Your task to perform on an android device: open app "Contacts" Image 0: 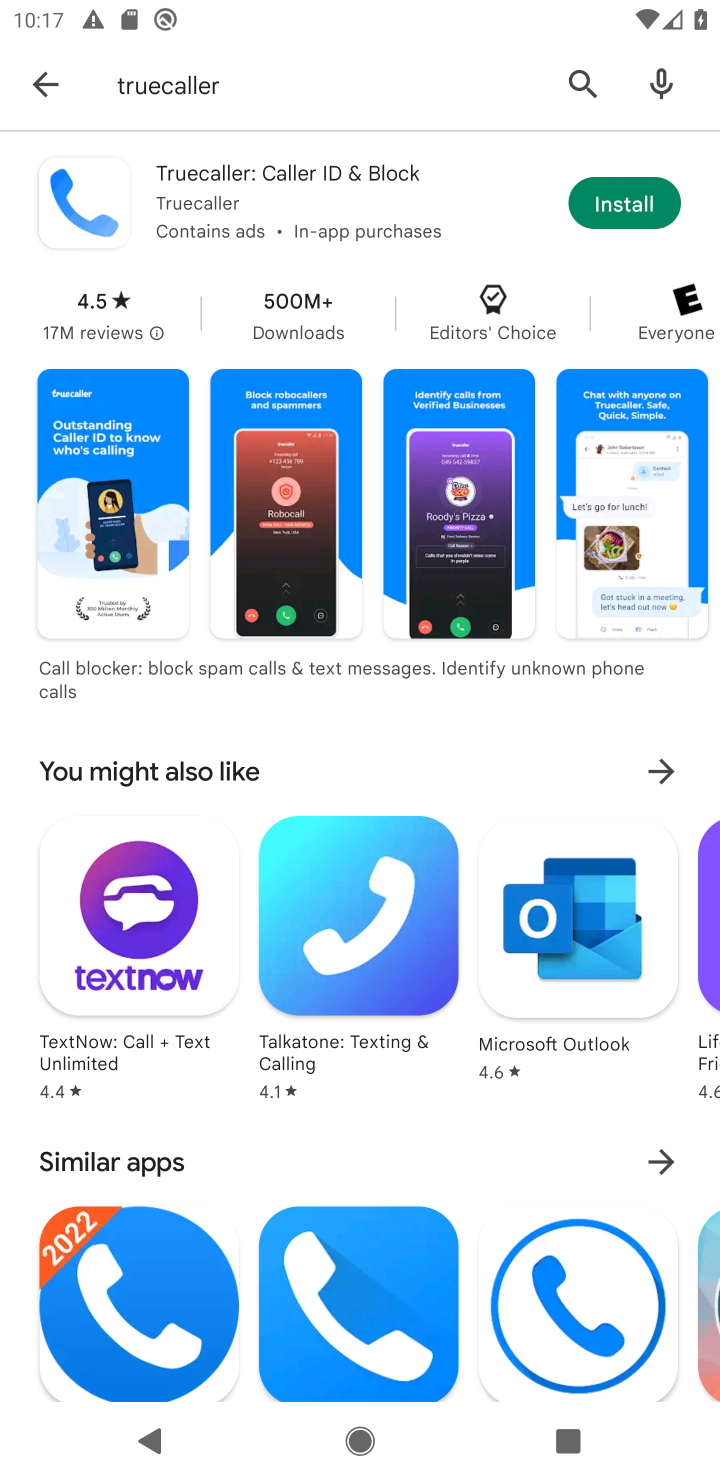
Step 0: click (277, 106)
Your task to perform on an android device: open app "Contacts" Image 1: 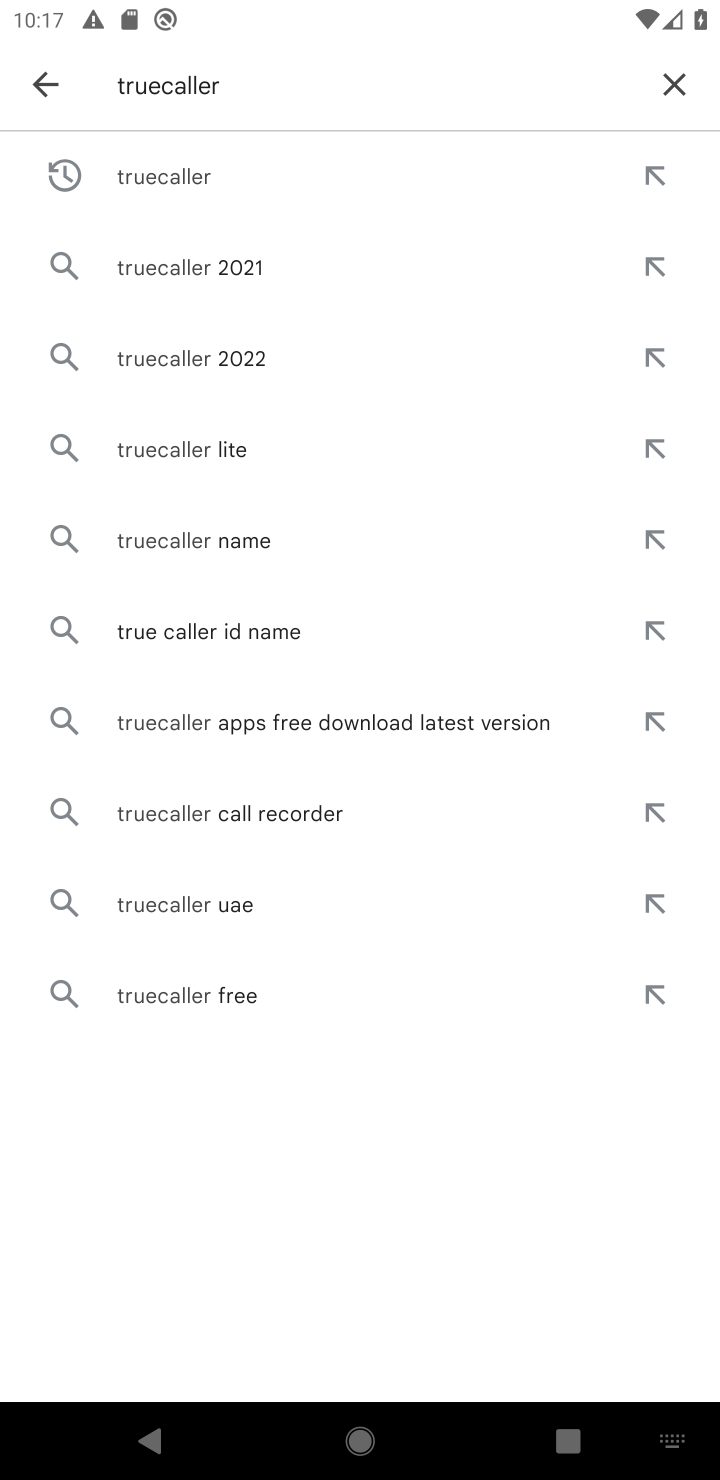
Step 1: click (674, 81)
Your task to perform on an android device: open app "Contacts" Image 2: 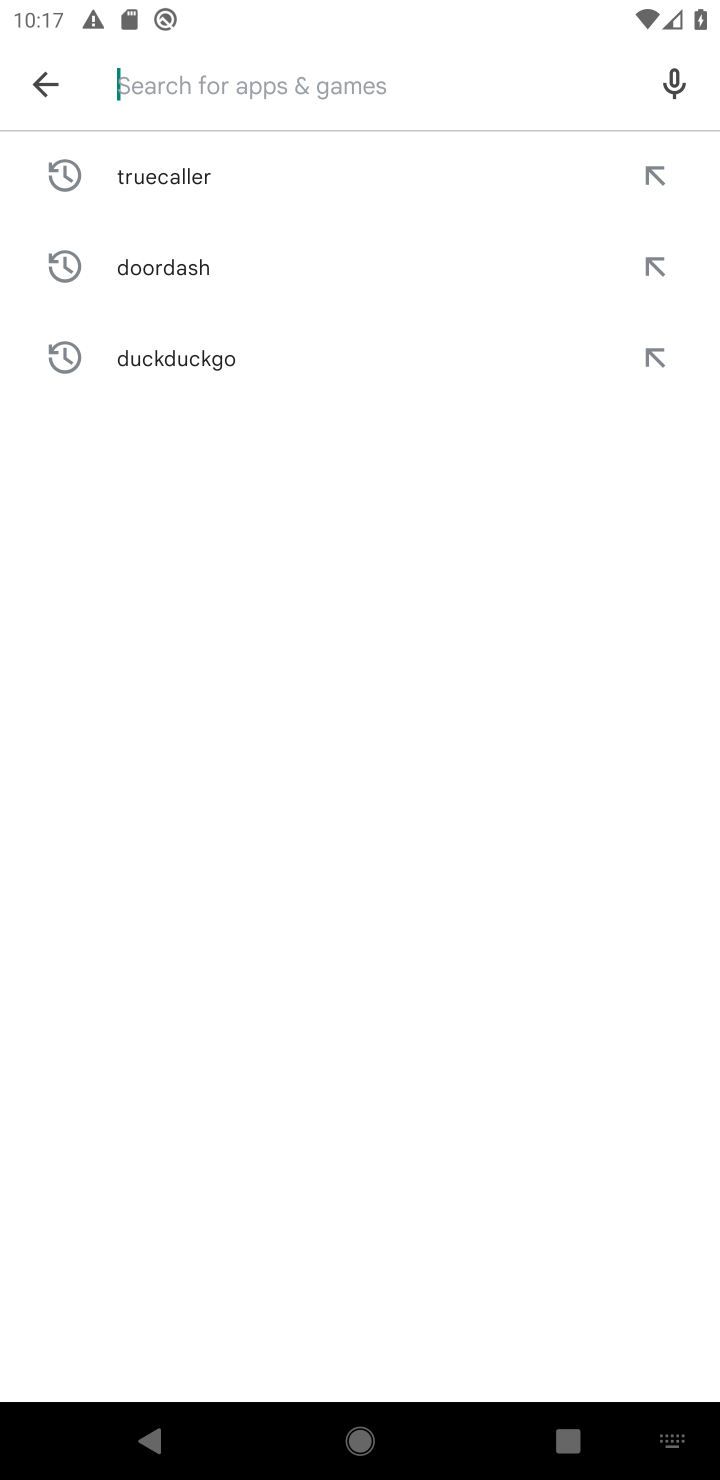
Step 2: type "Contacts"
Your task to perform on an android device: open app "Contacts" Image 3: 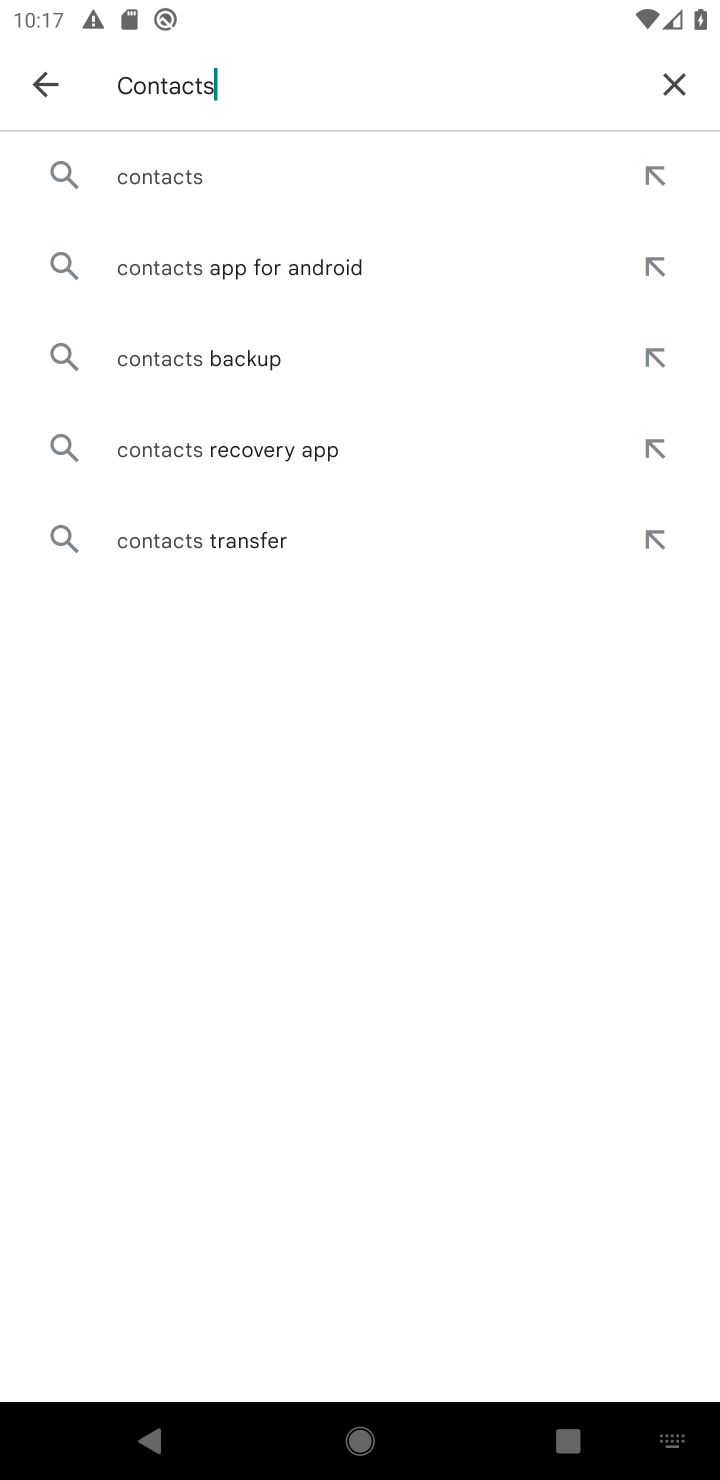
Step 3: click (228, 171)
Your task to perform on an android device: open app "Contacts" Image 4: 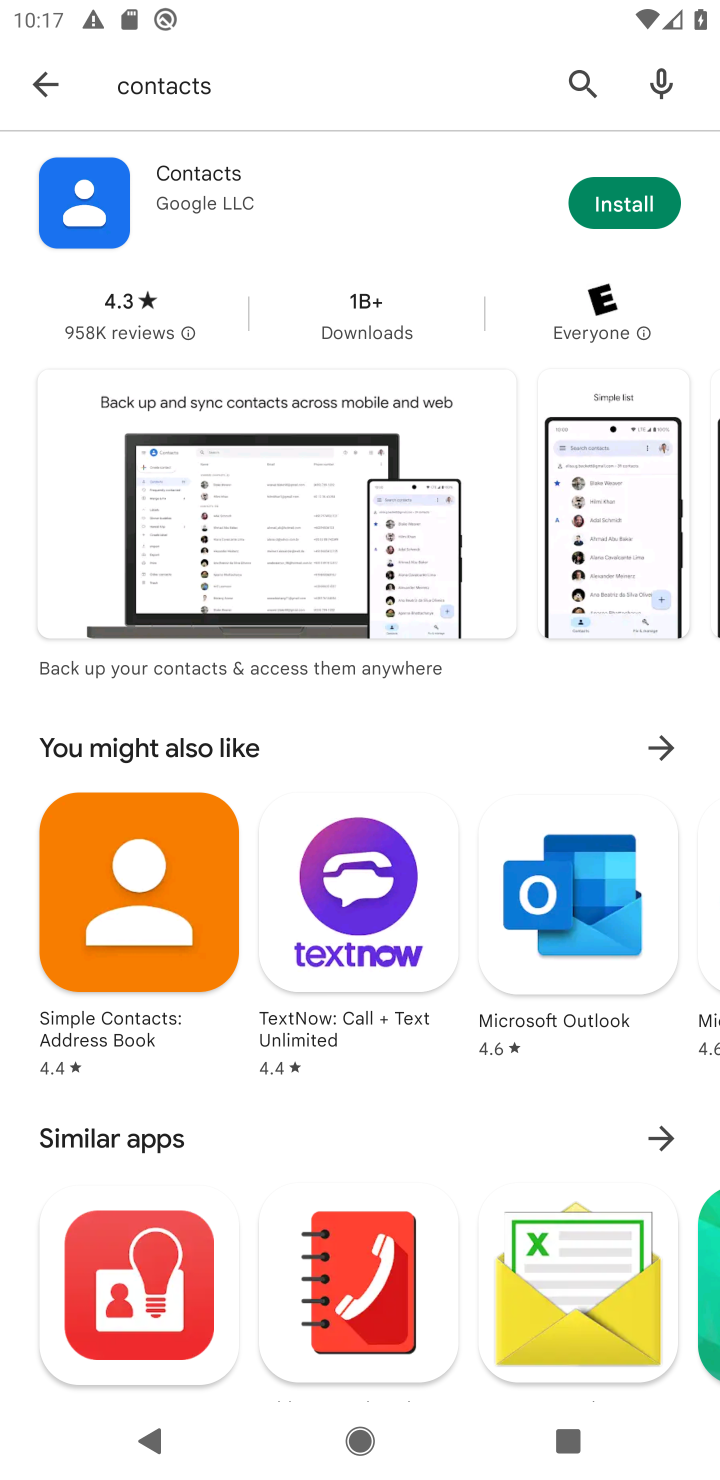
Step 4: task complete